Your task to perform on an android device: star an email in the gmail app Image 0: 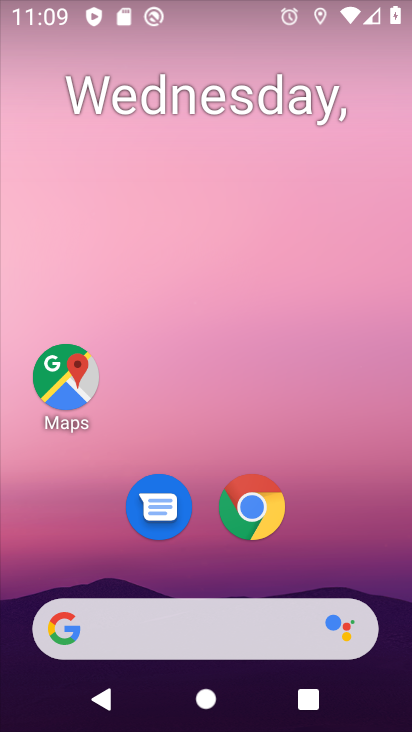
Step 0: drag from (357, 554) to (354, 138)
Your task to perform on an android device: star an email in the gmail app Image 1: 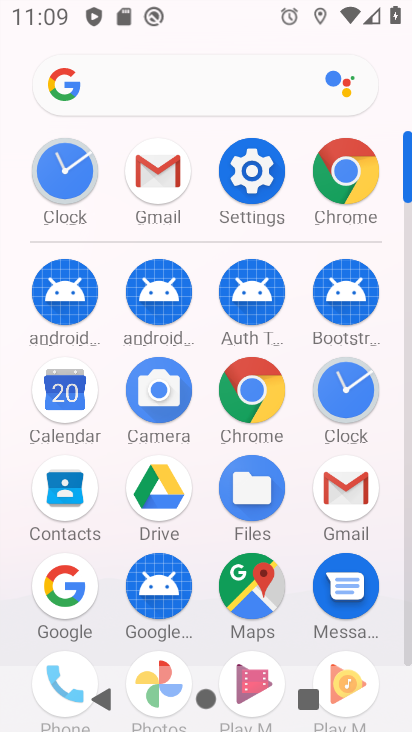
Step 1: click (344, 499)
Your task to perform on an android device: star an email in the gmail app Image 2: 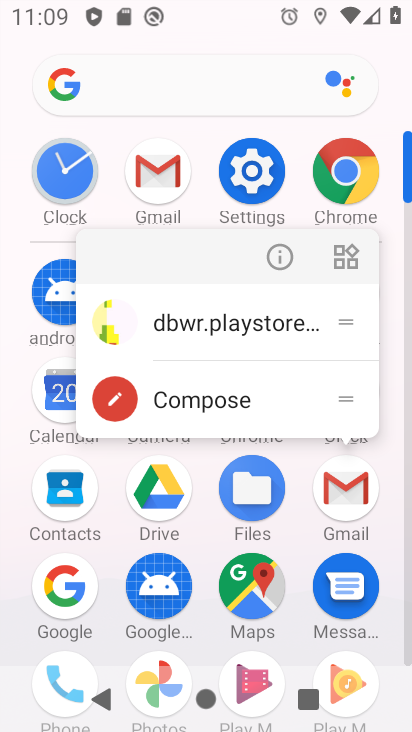
Step 2: click (355, 490)
Your task to perform on an android device: star an email in the gmail app Image 3: 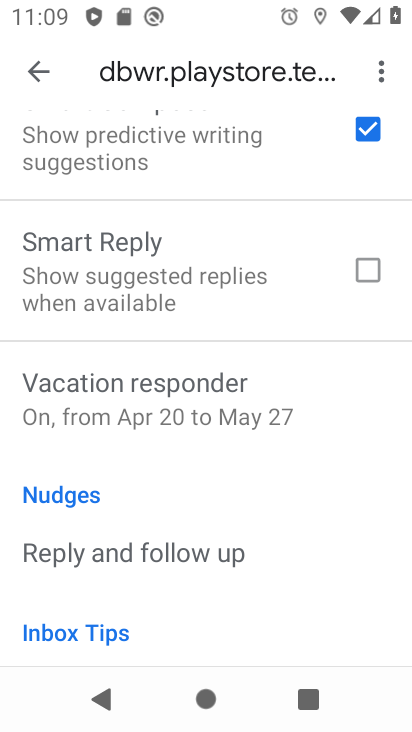
Step 3: click (45, 68)
Your task to perform on an android device: star an email in the gmail app Image 4: 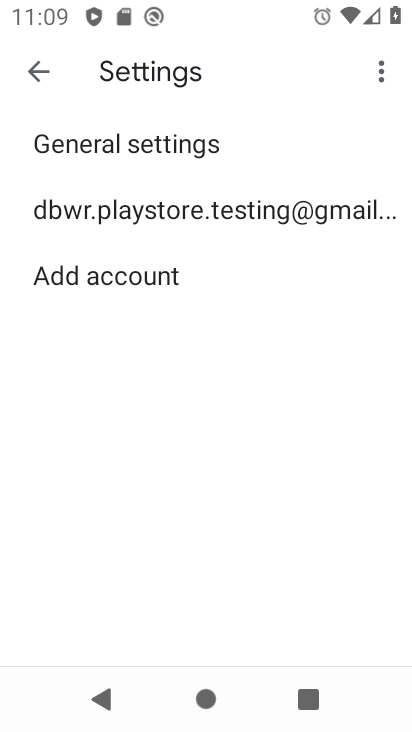
Step 4: click (48, 70)
Your task to perform on an android device: star an email in the gmail app Image 5: 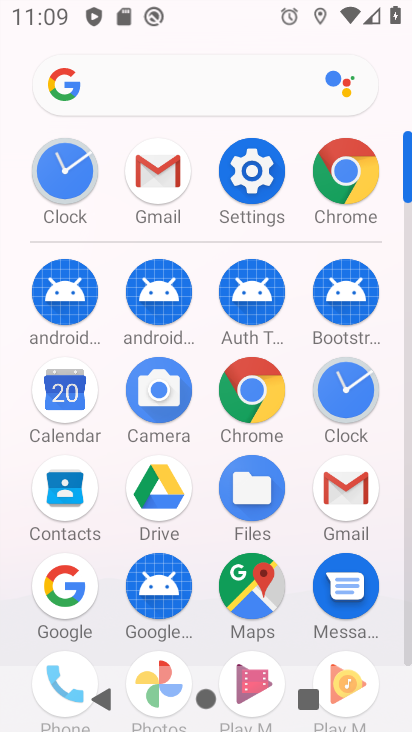
Step 5: click (351, 494)
Your task to perform on an android device: star an email in the gmail app Image 6: 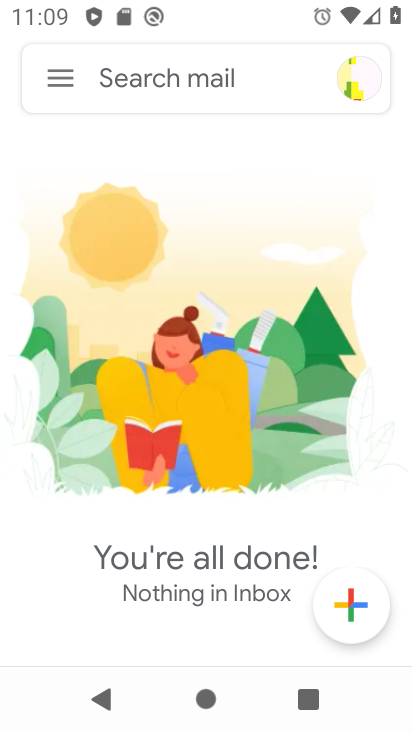
Step 6: task complete